Your task to perform on an android device: Open Amazon Image 0: 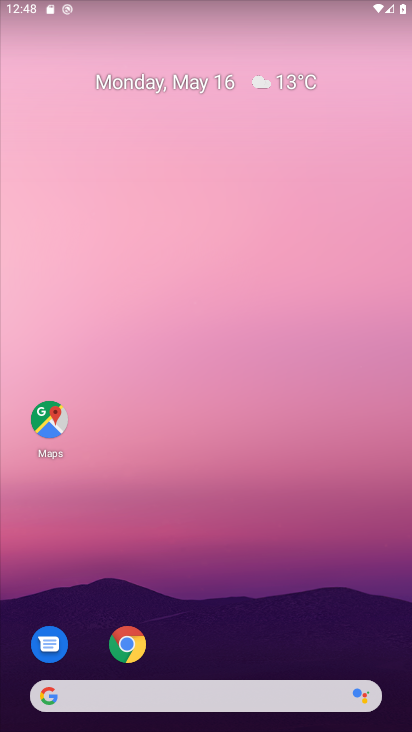
Step 0: drag from (235, 467) to (242, 77)
Your task to perform on an android device: Open Amazon Image 1: 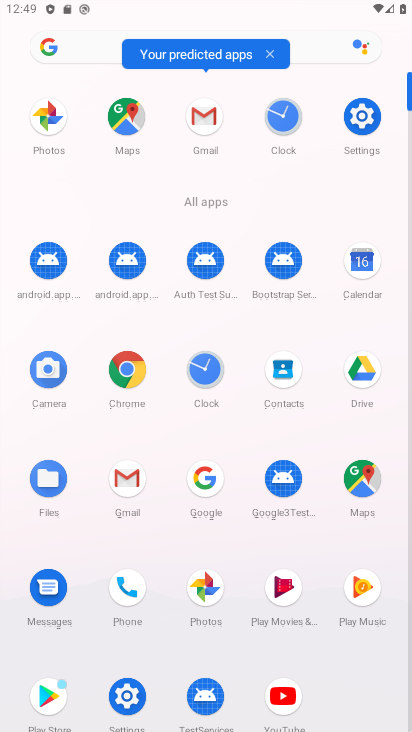
Step 1: click (120, 379)
Your task to perform on an android device: Open Amazon Image 2: 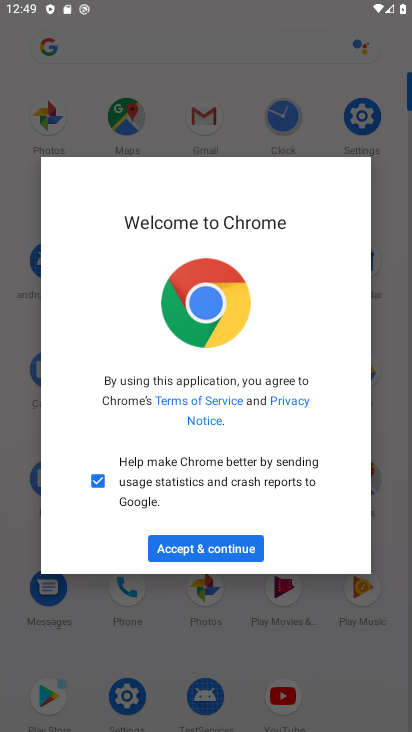
Step 2: click (209, 548)
Your task to perform on an android device: Open Amazon Image 3: 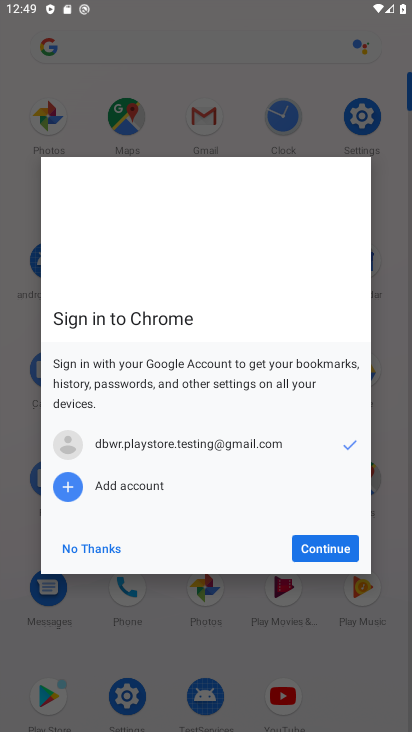
Step 3: click (345, 541)
Your task to perform on an android device: Open Amazon Image 4: 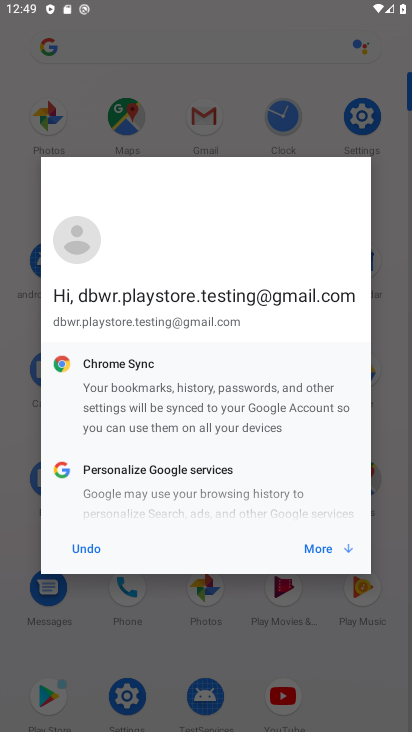
Step 4: click (323, 547)
Your task to perform on an android device: Open Amazon Image 5: 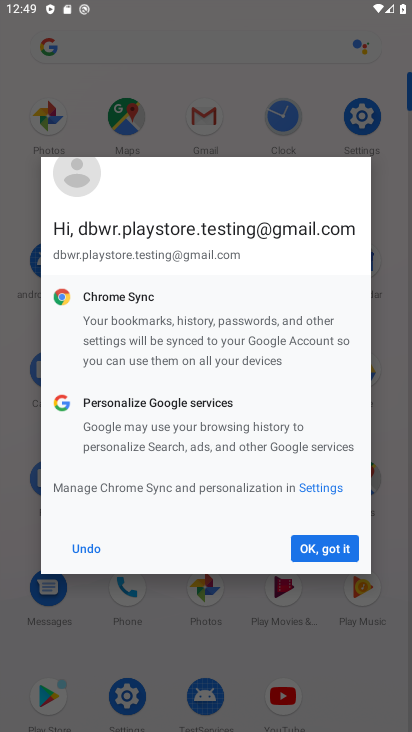
Step 5: click (323, 547)
Your task to perform on an android device: Open Amazon Image 6: 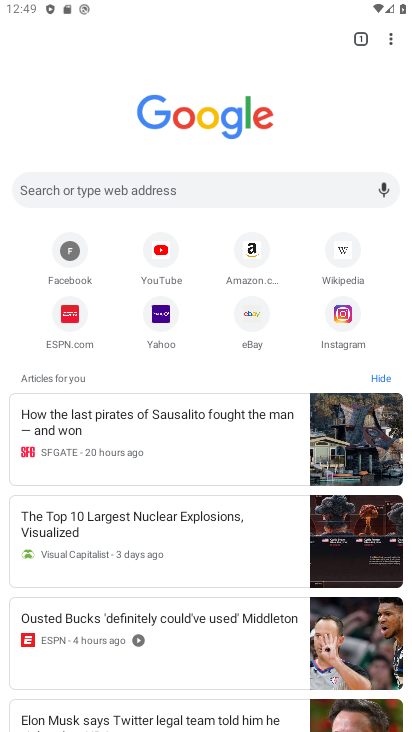
Step 6: click (255, 268)
Your task to perform on an android device: Open Amazon Image 7: 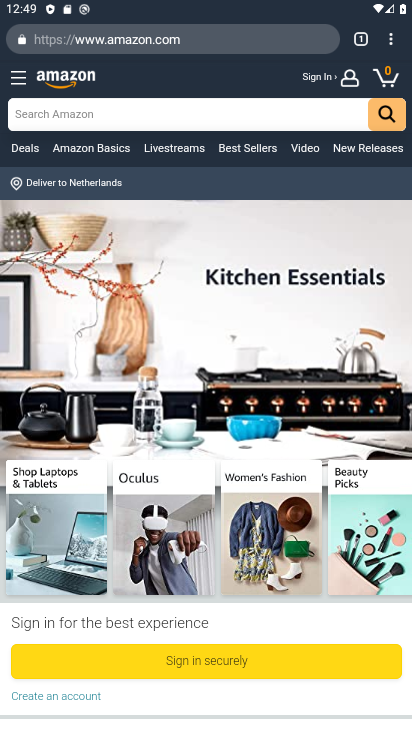
Step 7: task complete